Your task to perform on an android device: What's on my calendar today? Image 0: 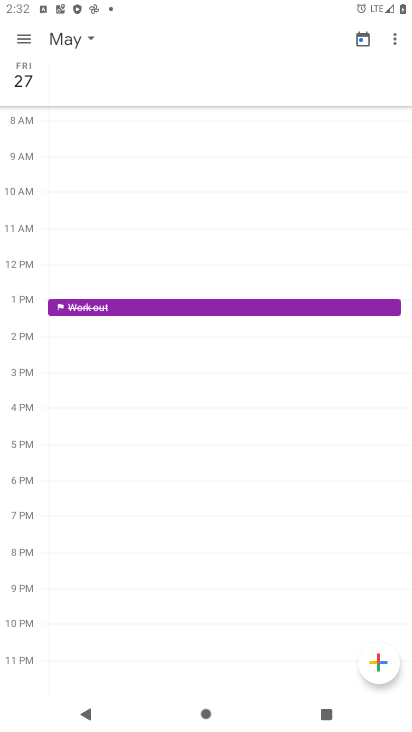
Step 0: click (22, 48)
Your task to perform on an android device: What's on my calendar today? Image 1: 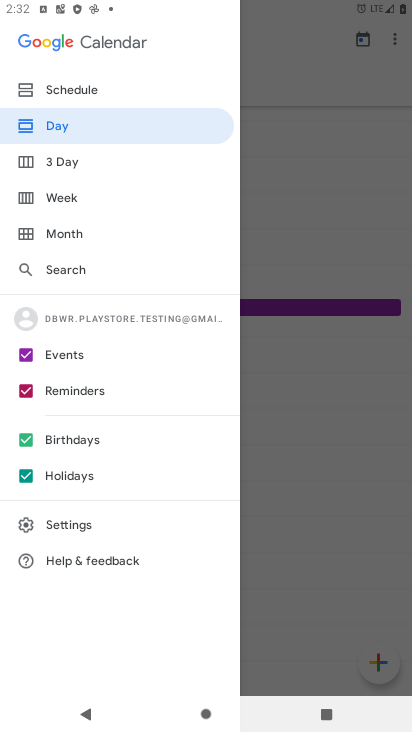
Step 1: click (82, 125)
Your task to perform on an android device: What's on my calendar today? Image 2: 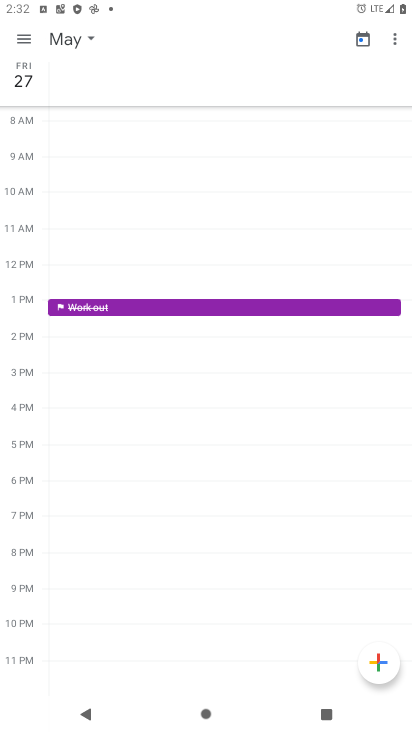
Step 2: click (92, 39)
Your task to perform on an android device: What's on my calendar today? Image 3: 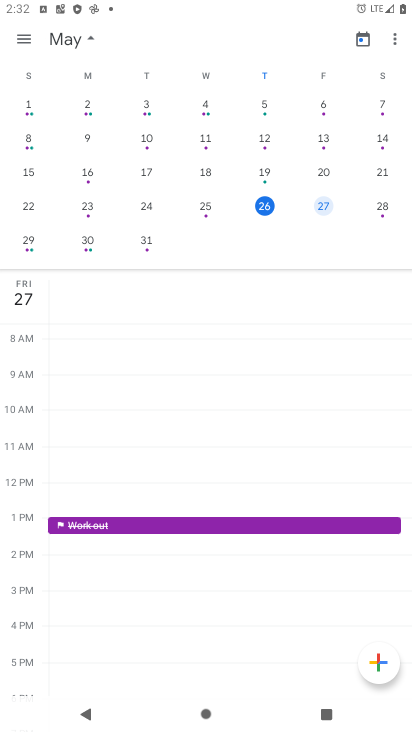
Step 3: click (258, 206)
Your task to perform on an android device: What's on my calendar today? Image 4: 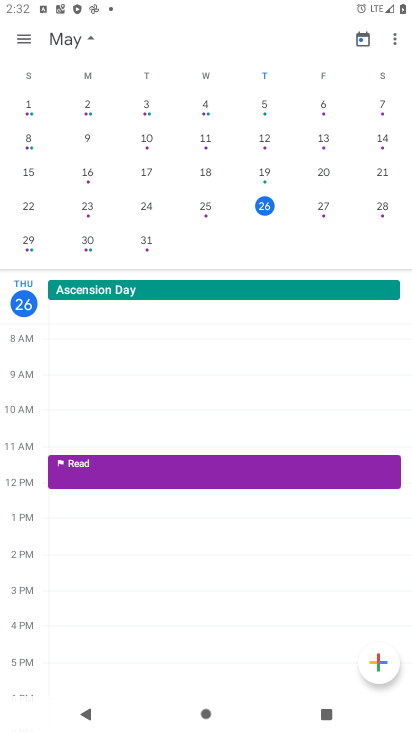
Step 4: task complete